Your task to perform on an android device: Open Chrome and go to settings Image 0: 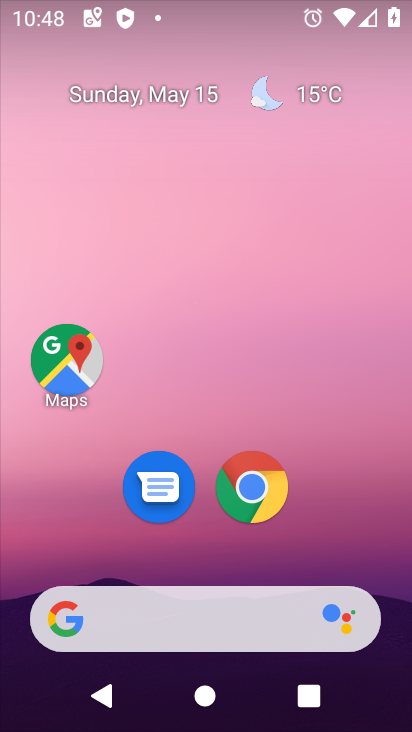
Step 0: click (255, 484)
Your task to perform on an android device: Open Chrome and go to settings Image 1: 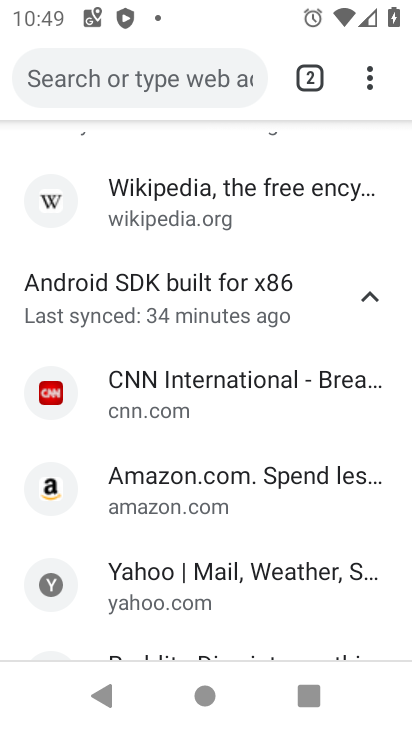
Step 1: click (371, 80)
Your task to perform on an android device: Open Chrome and go to settings Image 2: 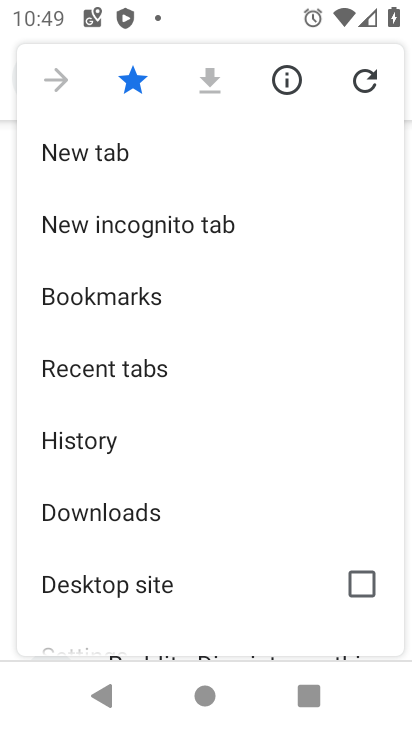
Step 2: drag from (236, 588) to (233, 293)
Your task to perform on an android device: Open Chrome and go to settings Image 3: 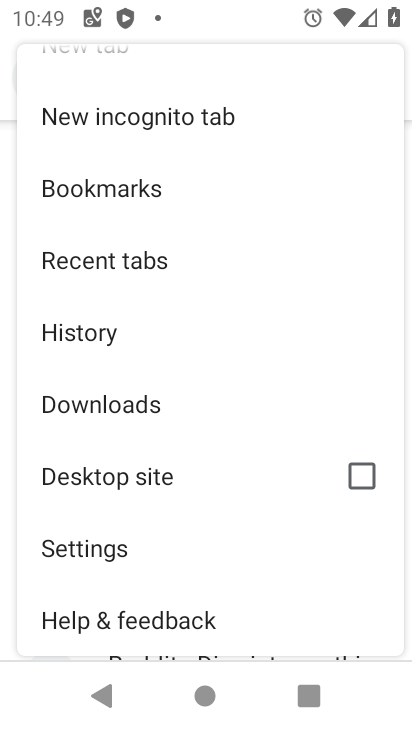
Step 3: click (83, 538)
Your task to perform on an android device: Open Chrome and go to settings Image 4: 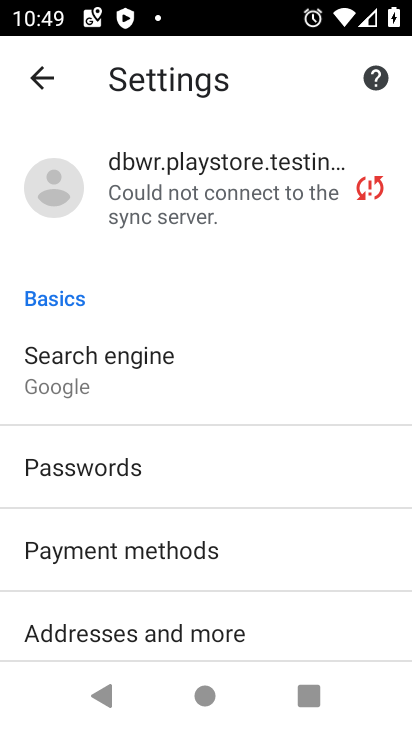
Step 4: task complete